Your task to perform on an android device: Search for "apple airpods pro" on amazon.com, select the first entry, and add it to the cart. Image 0: 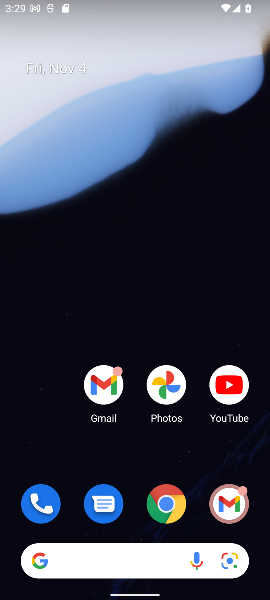
Step 0: click (167, 506)
Your task to perform on an android device: Search for "apple airpods pro" on amazon.com, select the first entry, and add it to the cart. Image 1: 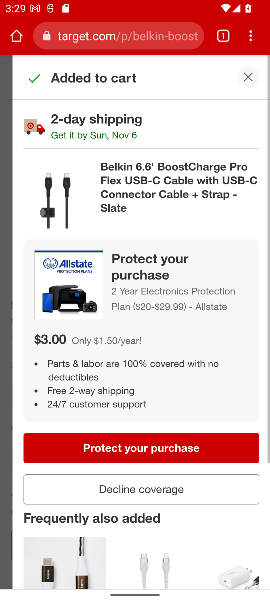
Step 1: click (134, 31)
Your task to perform on an android device: Search for "apple airpods pro" on amazon.com, select the first entry, and add it to the cart. Image 2: 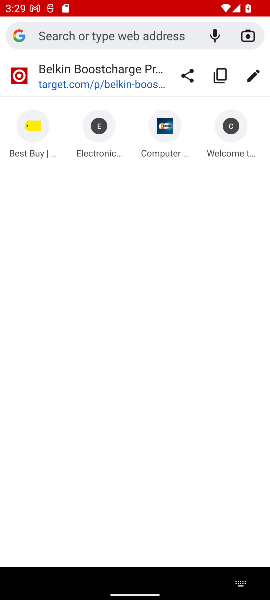
Step 2: type "amazon.com"
Your task to perform on an android device: Search for "apple airpods pro" on amazon.com, select the first entry, and add it to the cart. Image 3: 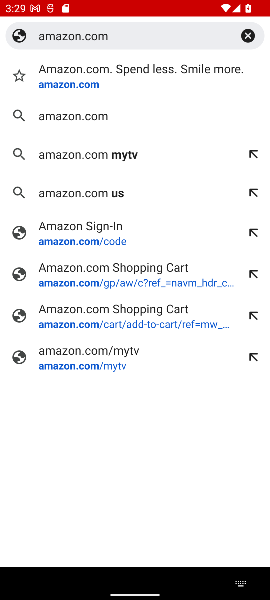
Step 3: click (69, 89)
Your task to perform on an android device: Search for "apple airpods pro" on amazon.com, select the first entry, and add it to the cart. Image 4: 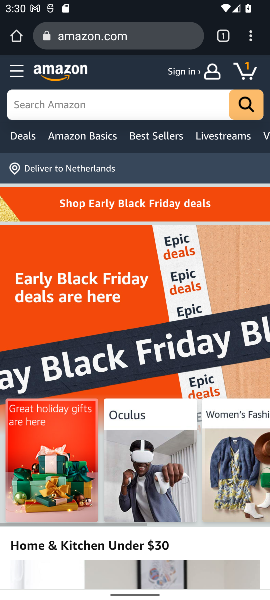
Step 4: click (109, 112)
Your task to perform on an android device: Search for "apple airpods pro" on amazon.com, select the first entry, and add it to the cart. Image 5: 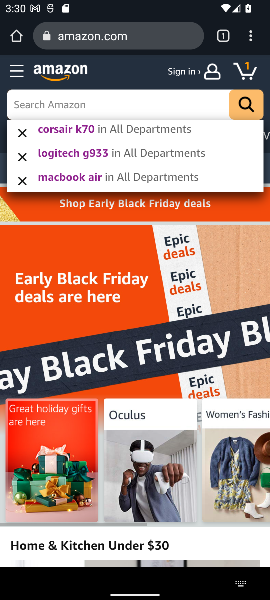
Step 5: type "apple airpods pro"
Your task to perform on an android device: Search for "apple airpods pro" on amazon.com, select the first entry, and add it to the cart. Image 6: 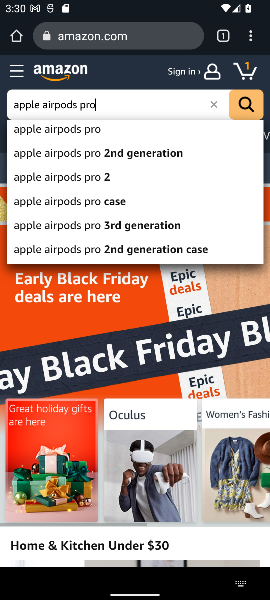
Step 6: click (80, 132)
Your task to perform on an android device: Search for "apple airpods pro" on amazon.com, select the first entry, and add it to the cart. Image 7: 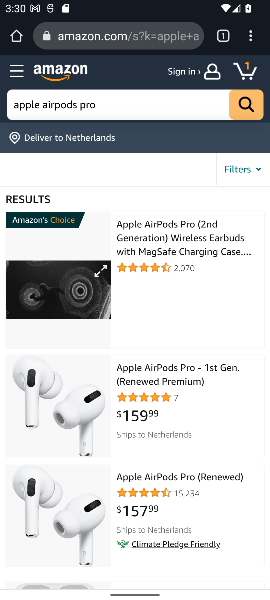
Step 7: click (149, 275)
Your task to perform on an android device: Search for "apple airpods pro" on amazon.com, select the first entry, and add it to the cart. Image 8: 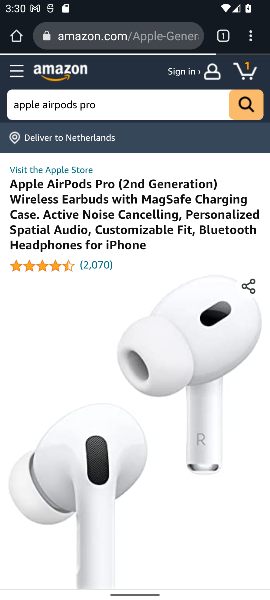
Step 8: task complete